Your task to perform on an android device: open app "Firefox Browser" (install if not already installed) and go to login screen Image 0: 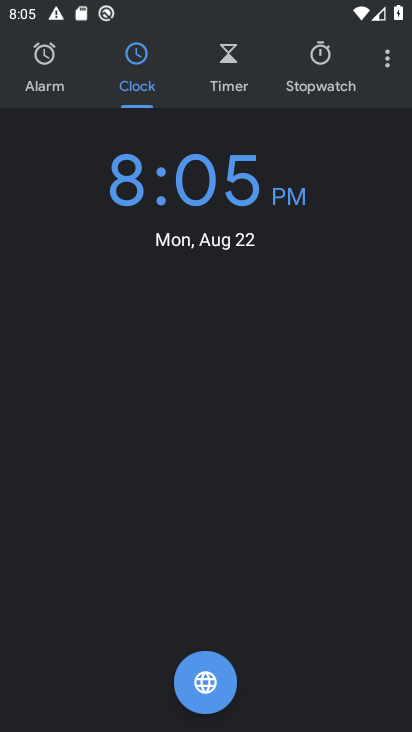
Step 0: press home button
Your task to perform on an android device: open app "Firefox Browser" (install if not already installed) and go to login screen Image 1: 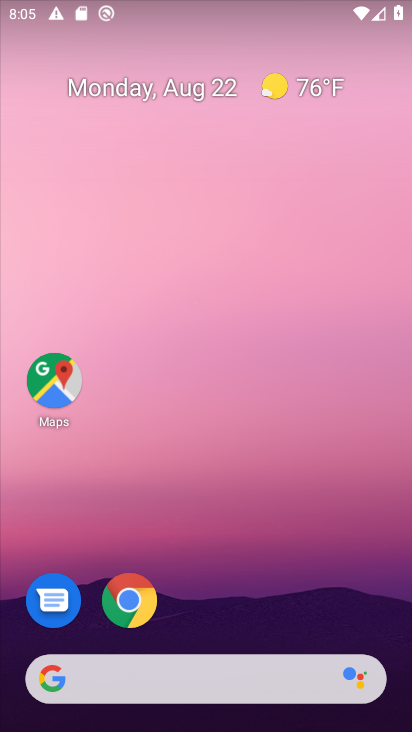
Step 1: drag from (233, 535) to (238, 180)
Your task to perform on an android device: open app "Firefox Browser" (install if not already installed) and go to login screen Image 2: 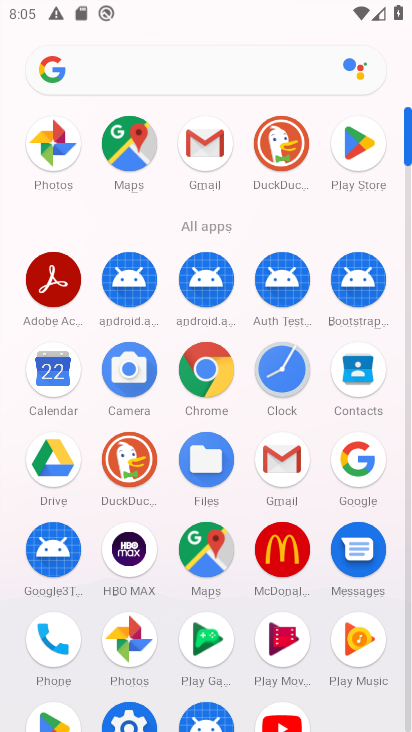
Step 2: click (349, 148)
Your task to perform on an android device: open app "Firefox Browser" (install if not already installed) and go to login screen Image 3: 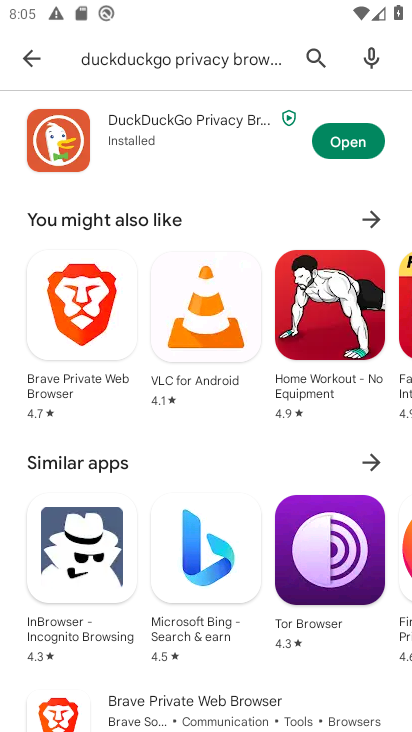
Step 3: drag from (315, 51) to (360, 51)
Your task to perform on an android device: open app "Firefox Browser" (install if not already installed) and go to login screen Image 4: 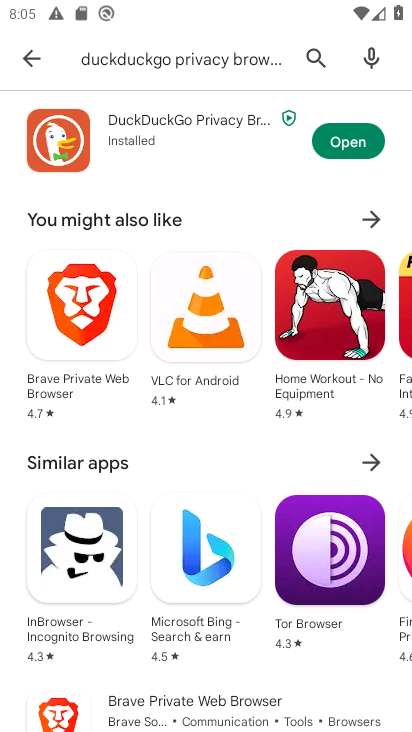
Step 4: click (308, 67)
Your task to perform on an android device: open app "Firefox Browser" (install if not already installed) and go to login screen Image 5: 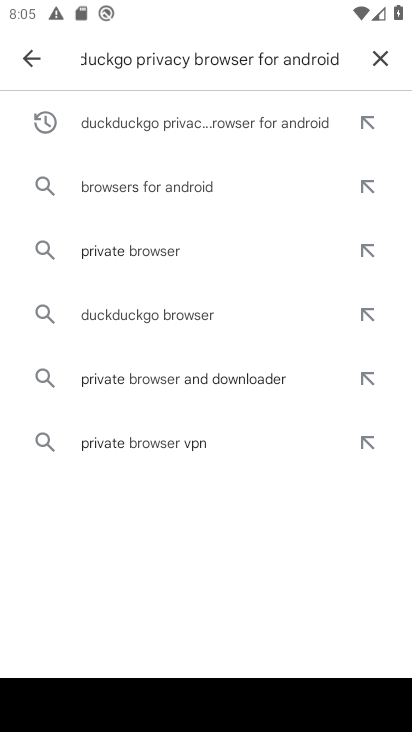
Step 5: click (378, 55)
Your task to perform on an android device: open app "Firefox Browser" (install if not already installed) and go to login screen Image 6: 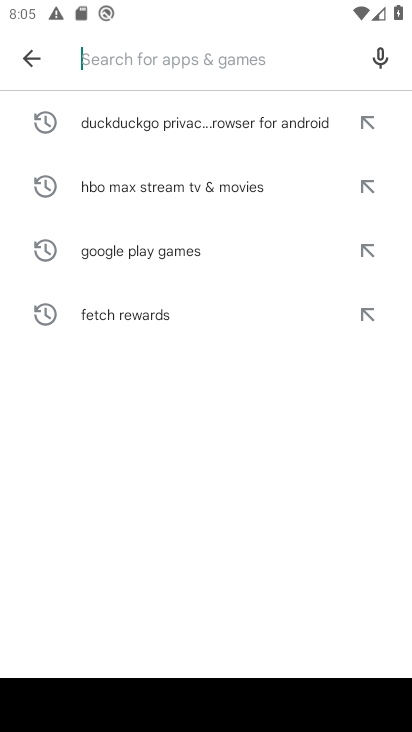
Step 6: type "Firefox Browser"
Your task to perform on an android device: open app "Firefox Browser" (install if not already installed) and go to login screen Image 7: 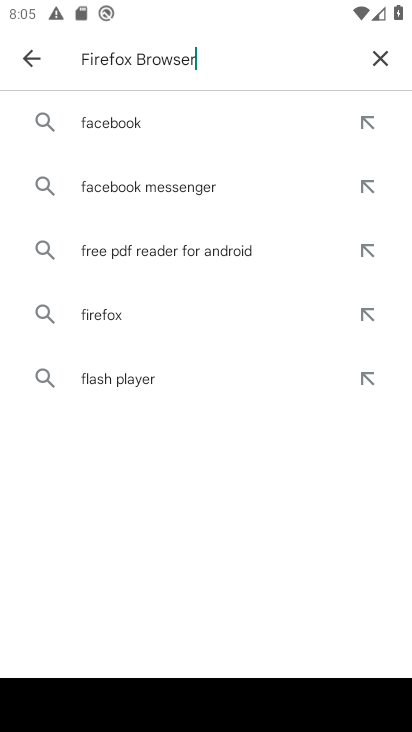
Step 7: type ""
Your task to perform on an android device: open app "Firefox Browser" (install if not already installed) and go to login screen Image 8: 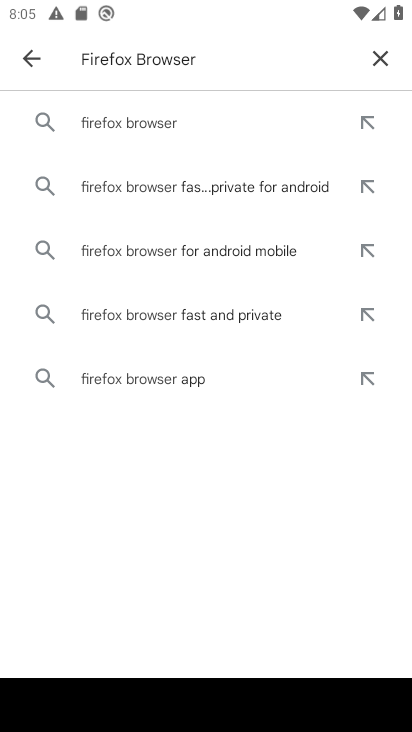
Step 8: click (123, 124)
Your task to perform on an android device: open app "Firefox Browser" (install if not already installed) and go to login screen Image 9: 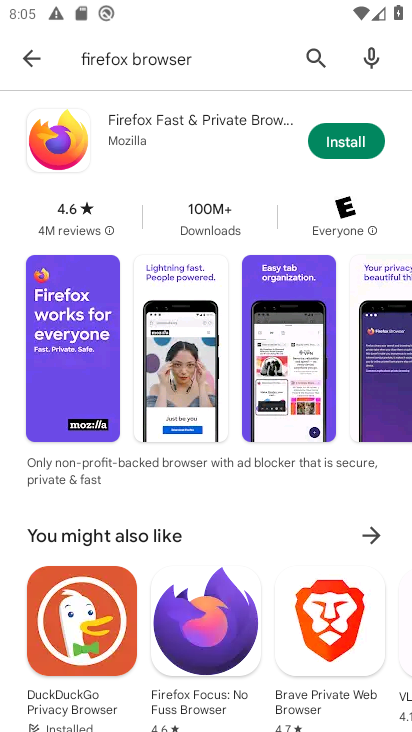
Step 9: click (335, 142)
Your task to perform on an android device: open app "Firefox Browser" (install if not already installed) and go to login screen Image 10: 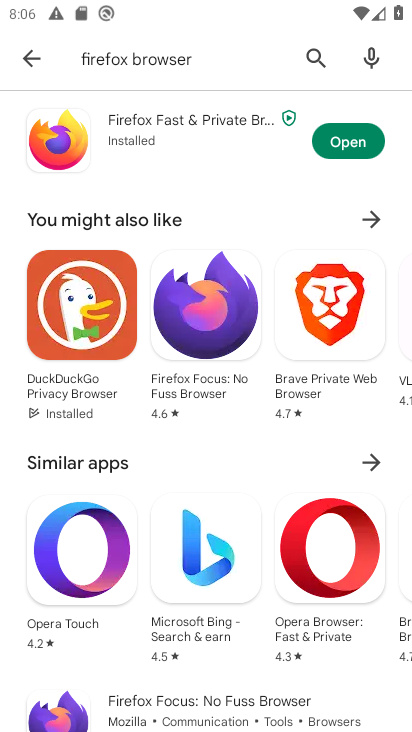
Step 10: click (353, 142)
Your task to perform on an android device: open app "Firefox Browser" (install if not already installed) and go to login screen Image 11: 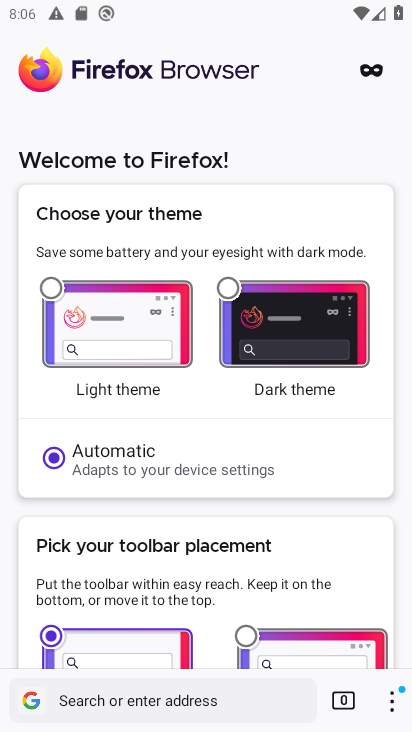
Step 11: task complete